Your task to perform on an android device: Turn on the flashlight Image 0: 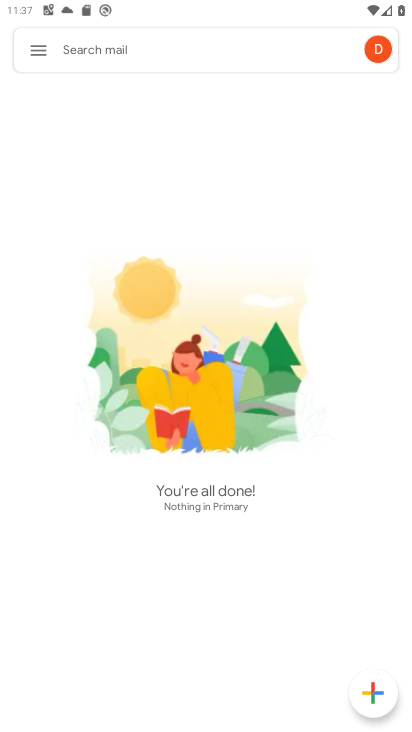
Step 0: press home button
Your task to perform on an android device: Turn on the flashlight Image 1: 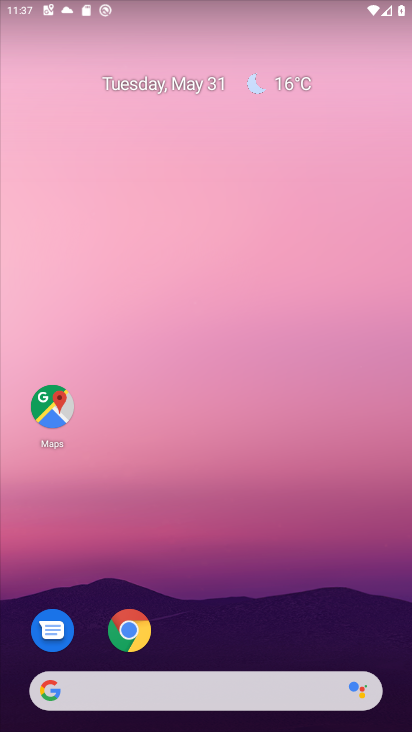
Step 1: drag from (228, 601) to (205, 118)
Your task to perform on an android device: Turn on the flashlight Image 2: 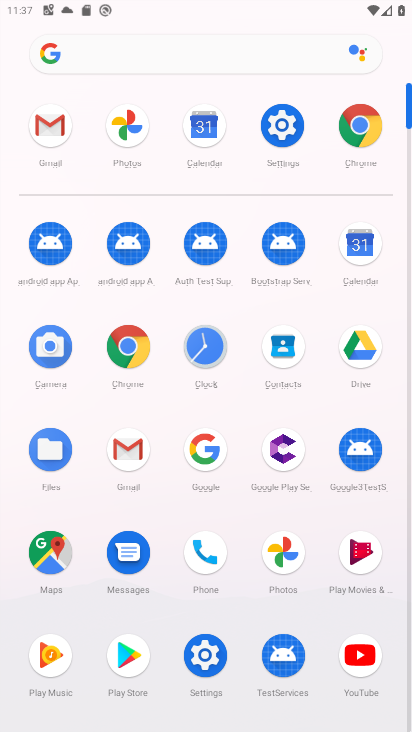
Step 2: click (290, 139)
Your task to perform on an android device: Turn on the flashlight Image 3: 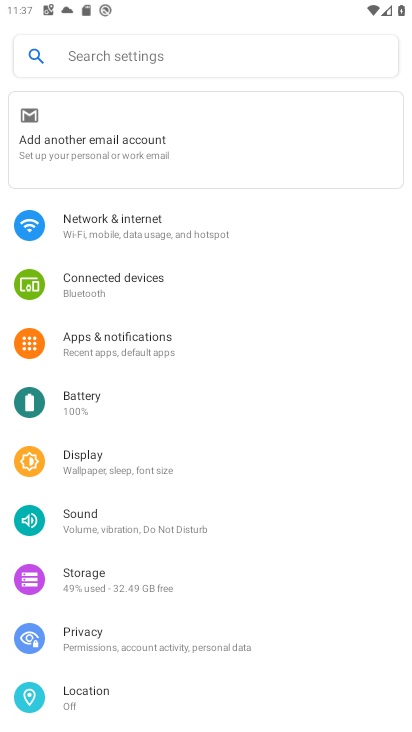
Step 3: click (127, 466)
Your task to perform on an android device: Turn on the flashlight Image 4: 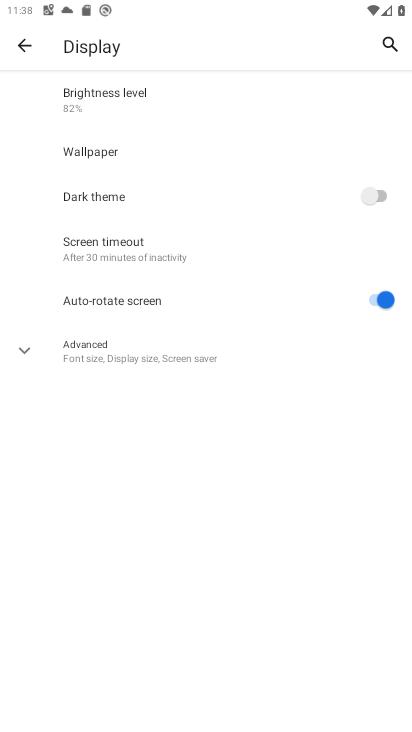
Step 4: task complete